Your task to perform on an android device: Open internet settings Image 0: 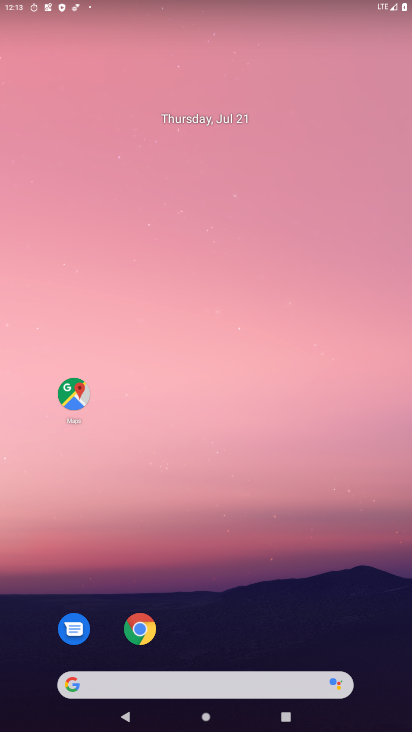
Step 0: drag from (186, 680) to (167, 18)
Your task to perform on an android device: Open internet settings Image 1: 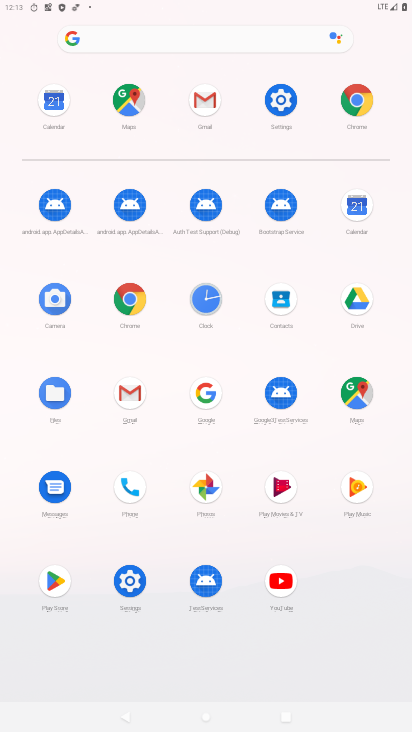
Step 1: click (273, 106)
Your task to perform on an android device: Open internet settings Image 2: 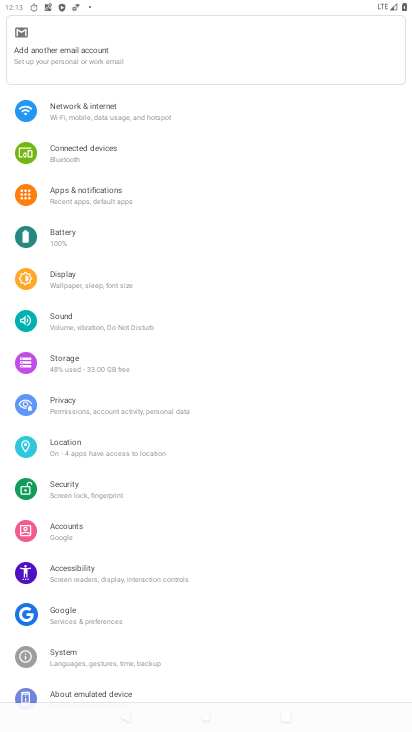
Step 2: click (118, 112)
Your task to perform on an android device: Open internet settings Image 3: 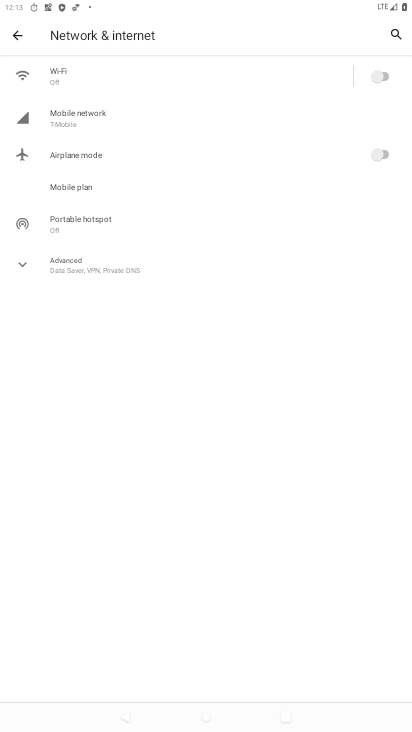
Step 3: task complete